Your task to perform on an android device: delete the emails in spam in the gmail app Image 0: 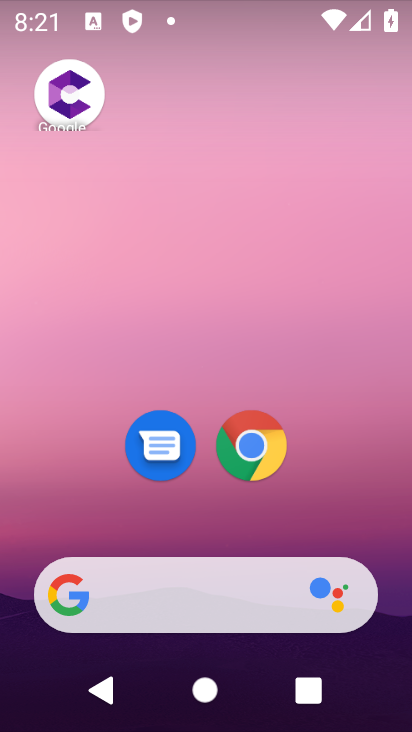
Step 0: drag from (324, 414) to (361, 84)
Your task to perform on an android device: delete the emails in spam in the gmail app Image 1: 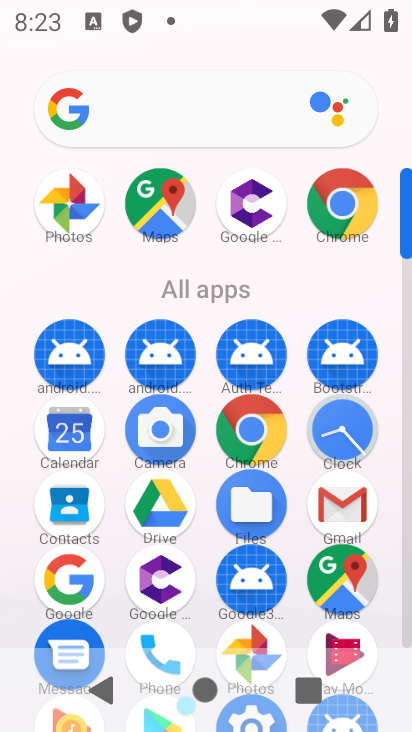
Step 1: click (371, 504)
Your task to perform on an android device: delete the emails in spam in the gmail app Image 2: 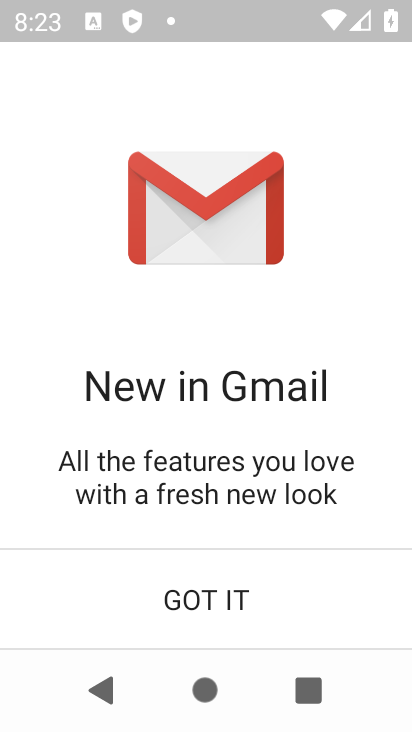
Step 2: click (273, 601)
Your task to perform on an android device: delete the emails in spam in the gmail app Image 3: 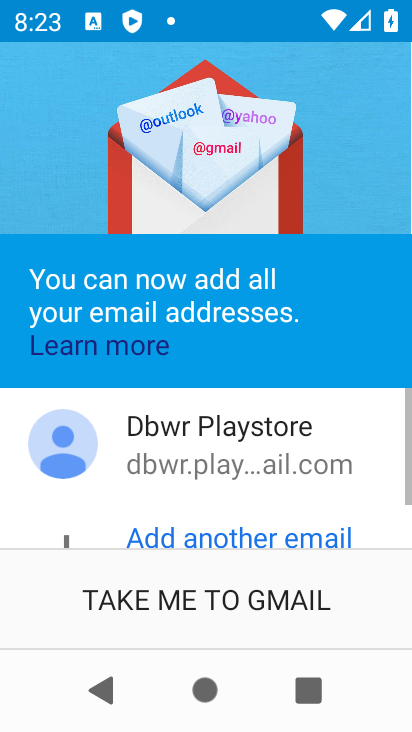
Step 3: click (273, 602)
Your task to perform on an android device: delete the emails in spam in the gmail app Image 4: 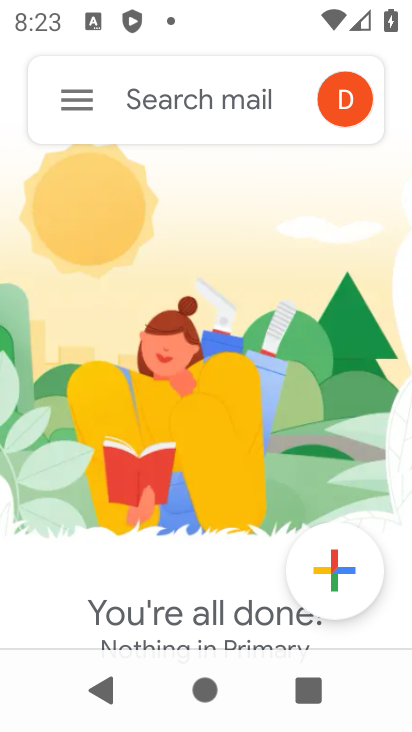
Step 4: click (76, 106)
Your task to perform on an android device: delete the emails in spam in the gmail app Image 5: 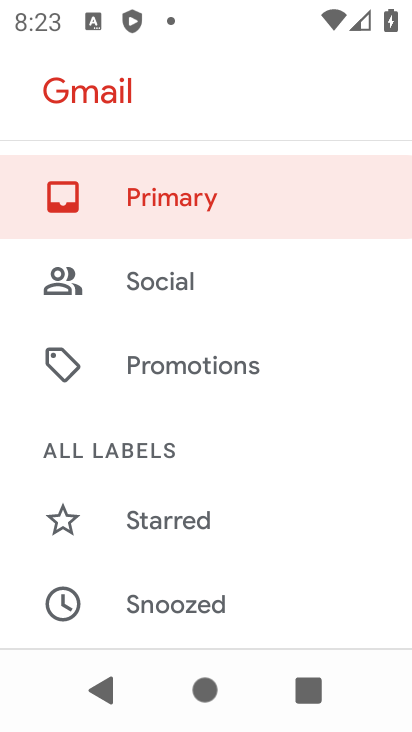
Step 5: drag from (205, 603) to (213, 185)
Your task to perform on an android device: delete the emails in spam in the gmail app Image 6: 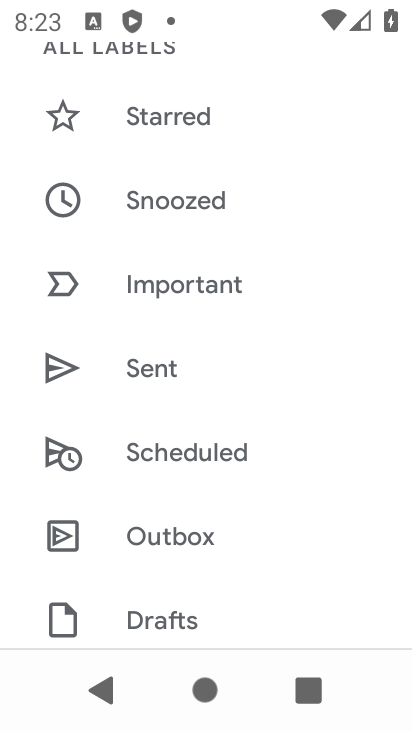
Step 6: drag from (248, 611) to (192, 219)
Your task to perform on an android device: delete the emails in spam in the gmail app Image 7: 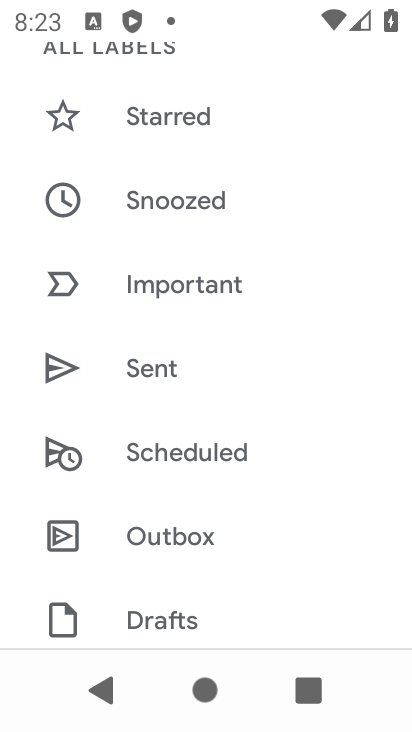
Step 7: drag from (148, 517) to (173, 156)
Your task to perform on an android device: delete the emails in spam in the gmail app Image 8: 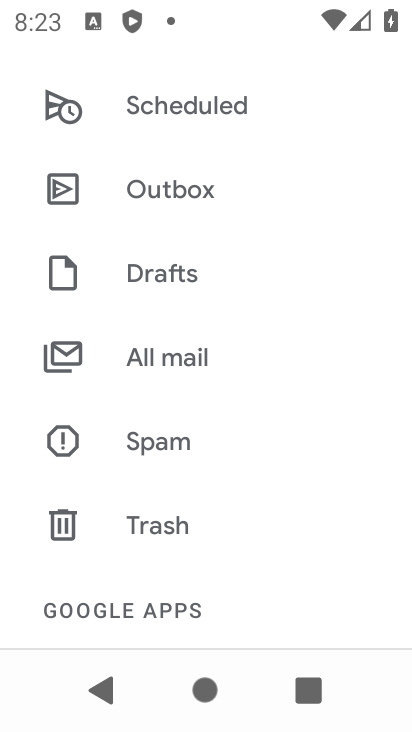
Step 8: click (196, 373)
Your task to perform on an android device: delete the emails in spam in the gmail app Image 9: 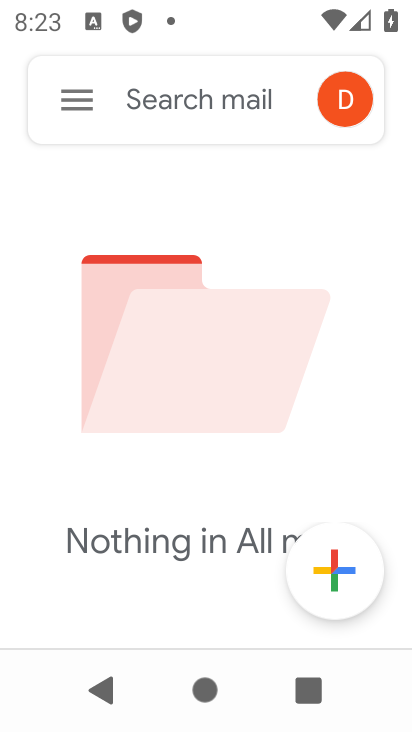
Step 9: task complete